Your task to perform on an android device: Search for the best selling books on Target. Image 0: 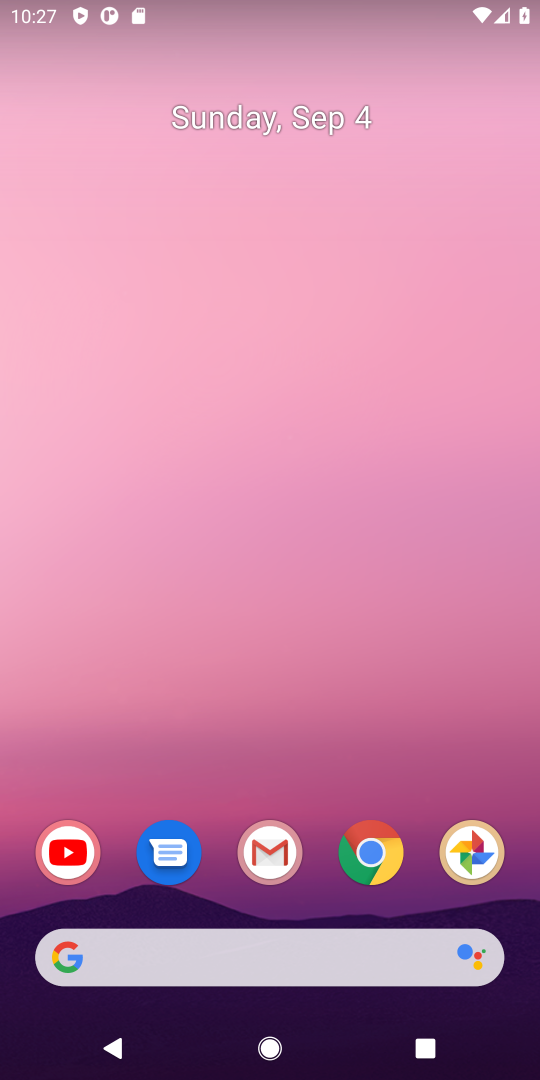
Step 0: drag from (430, 897) to (512, 201)
Your task to perform on an android device: Search for the best selling books on Target. Image 1: 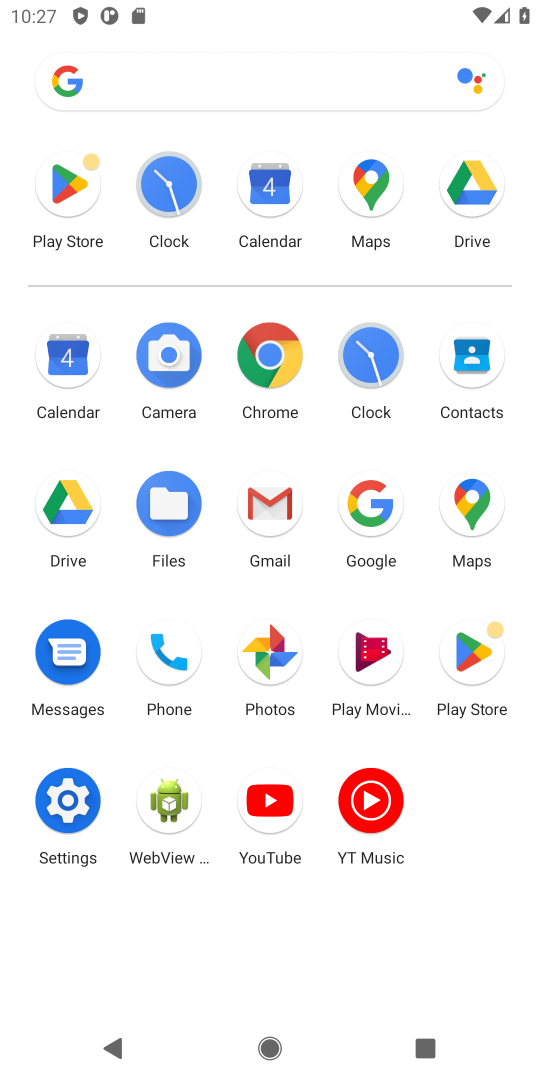
Step 1: click (350, 501)
Your task to perform on an android device: Search for the best selling books on Target. Image 2: 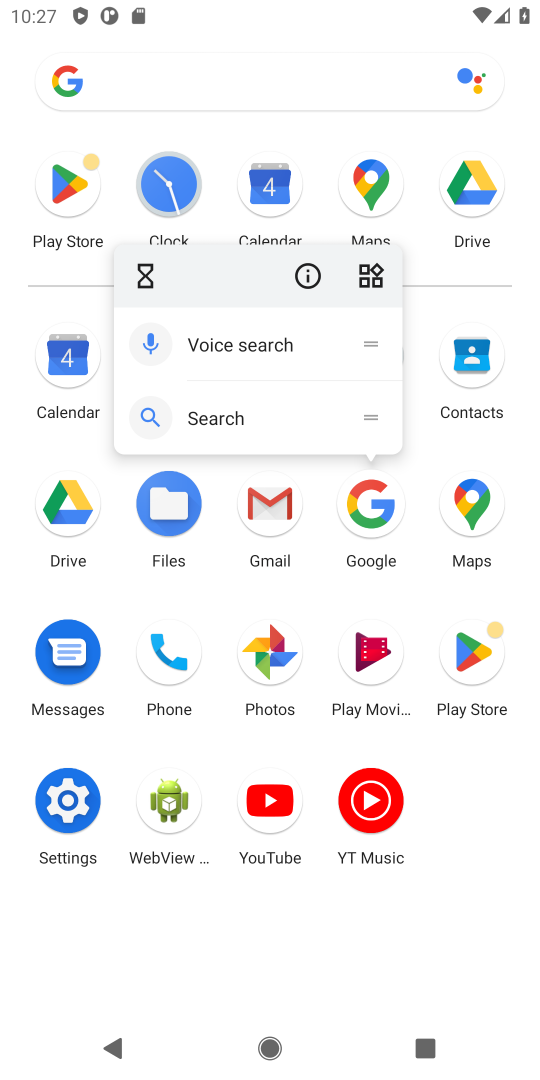
Step 2: click (350, 501)
Your task to perform on an android device: Search for the best selling books on Target. Image 3: 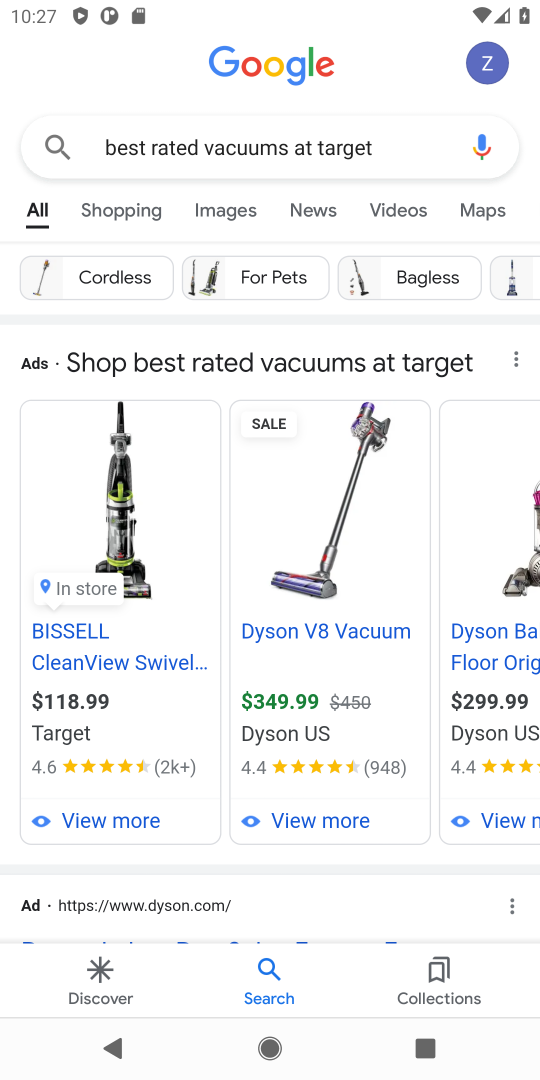
Step 3: press back button
Your task to perform on an android device: Search for the best selling books on Target. Image 4: 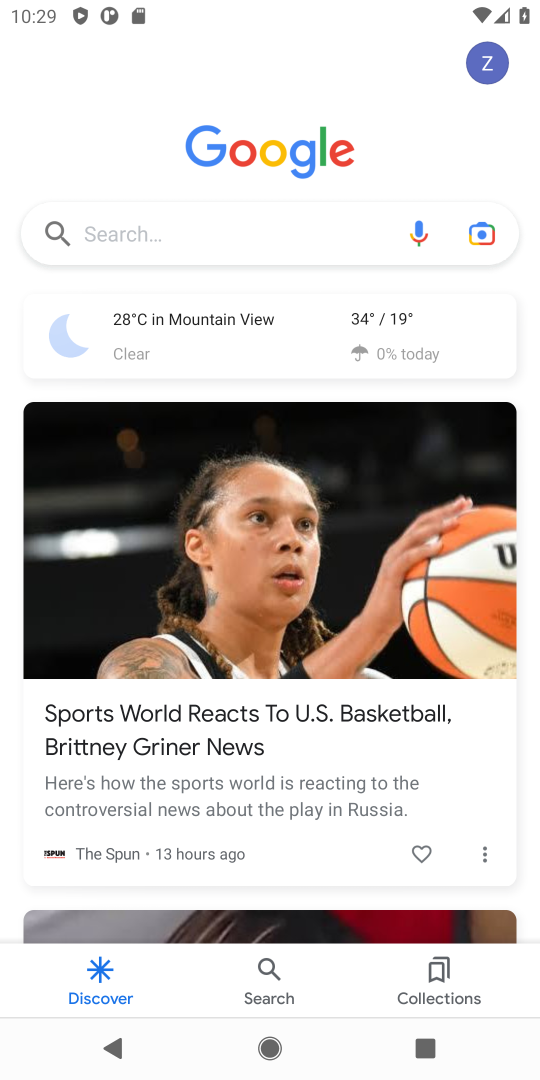
Step 4: click (201, 226)
Your task to perform on an android device: Search for the best selling books on Target. Image 5: 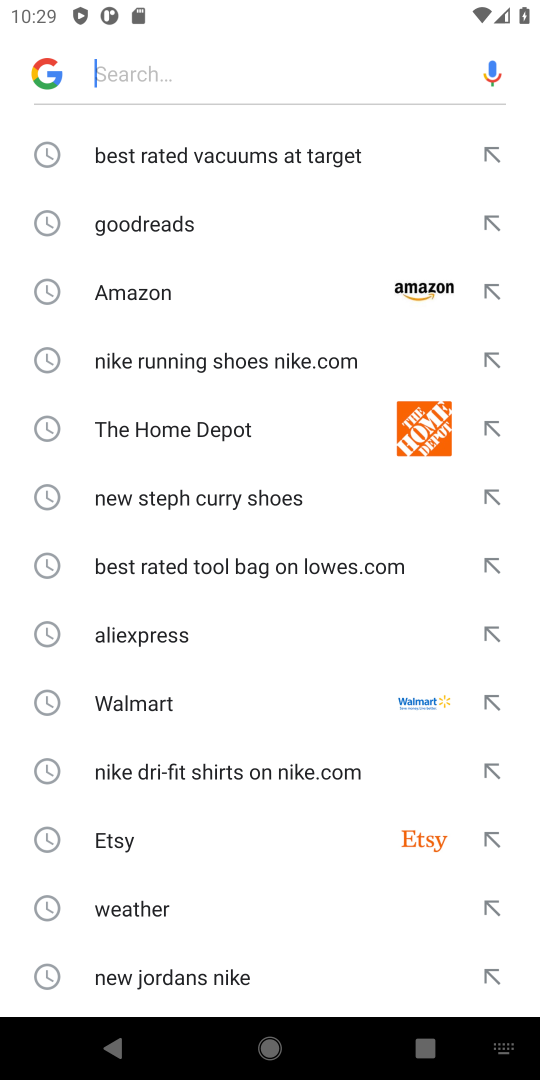
Step 5: type "best selling books on Target"
Your task to perform on an android device: Search for the best selling books on Target. Image 6: 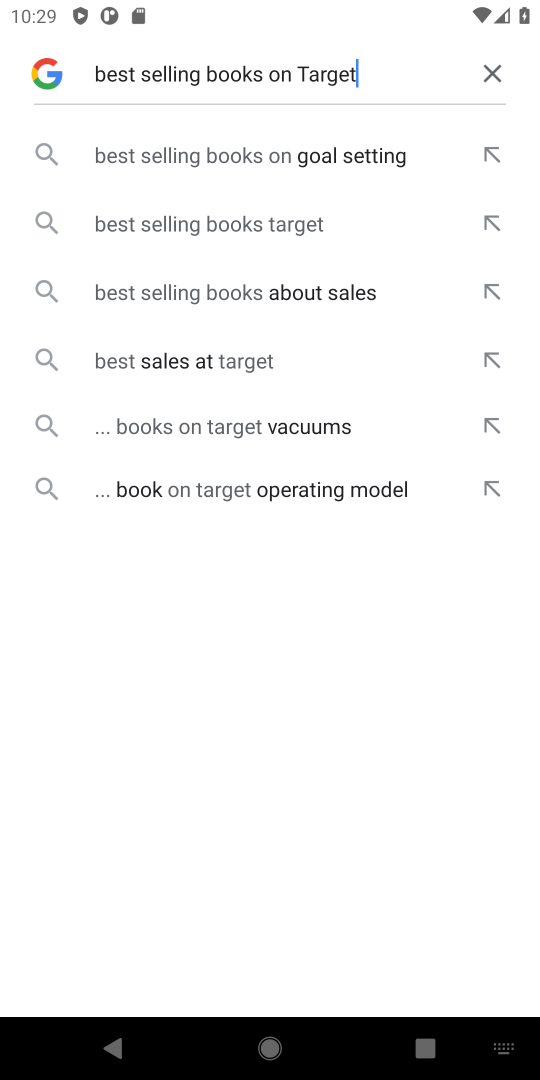
Step 6: click (214, 235)
Your task to perform on an android device: Search for the best selling books on Target. Image 7: 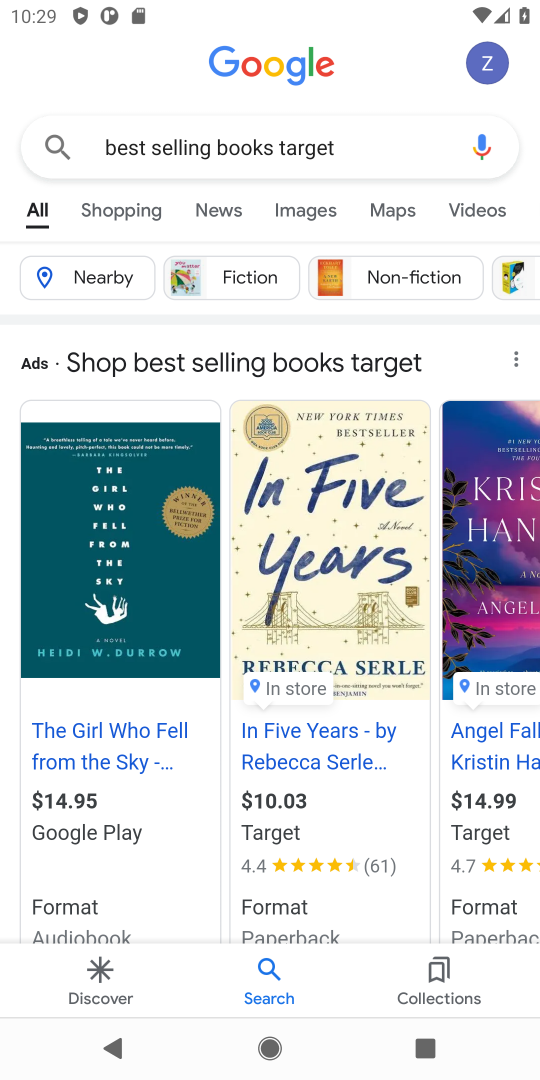
Step 7: task complete